Your task to perform on an android device: turn off javascript in the chrome app Image 0: 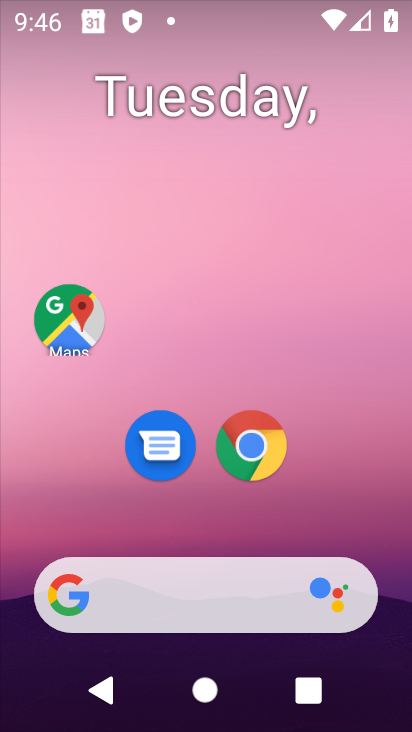
Step 0: press home button
Your task to perform on an android device: turn off javascript in the chrome app Image 1: 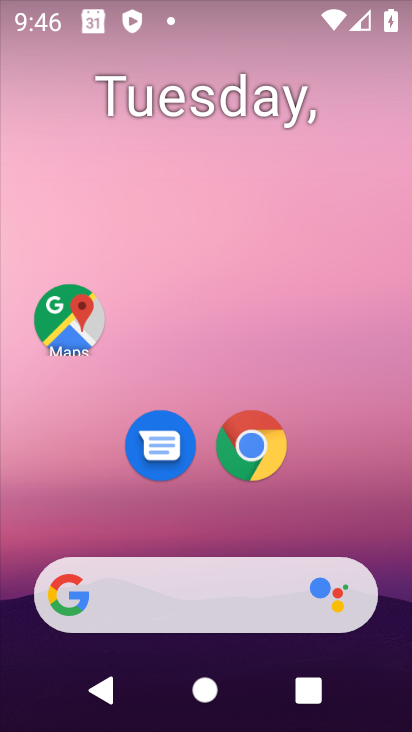
Step 1: click (249, 443)
Your task to perform on an android device: turn off javascript in the chrome app Image 2: 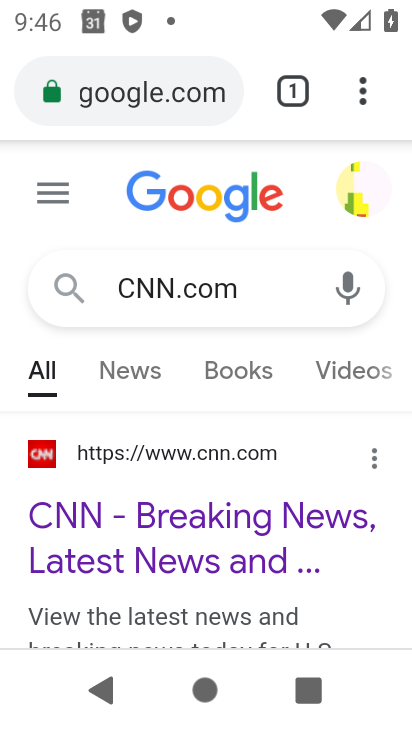
Step 2: click (368, 85)
Your task to perform on an android device: turn off javascript in the chrome app Image 3: 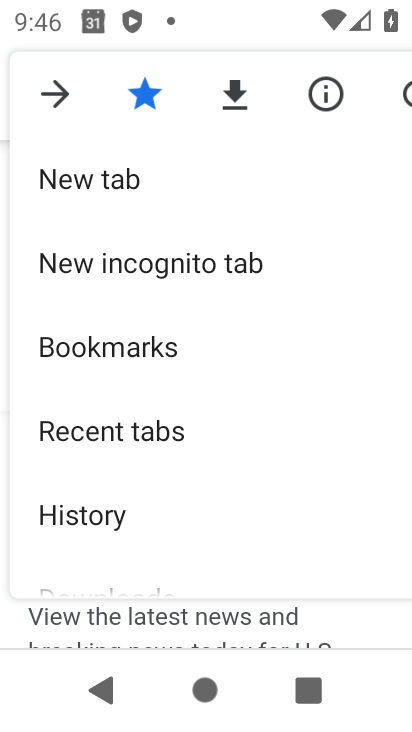
Step 3: drag from (180, 539) to (189, 259)
Your task to perform on an android device: turn off javascript in the chrome app Image 4: 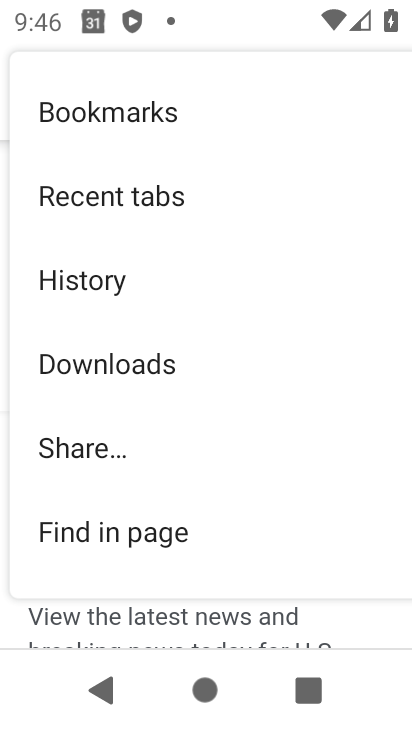
Step 4: drag from (189, 162) to (190, 118)
Your task to perform on an android device: turn off javascript in the chrome app Image 5: 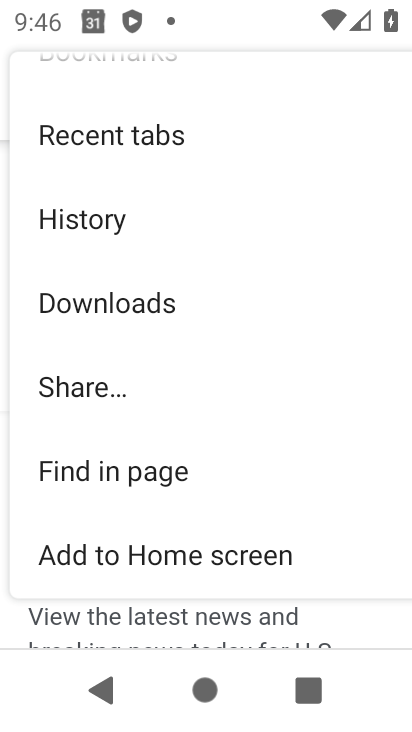
Step 5: drag from (176, 561) to (200, 170)
Your task to perform on an android device: turn off javascript in the chrome app Image 6: 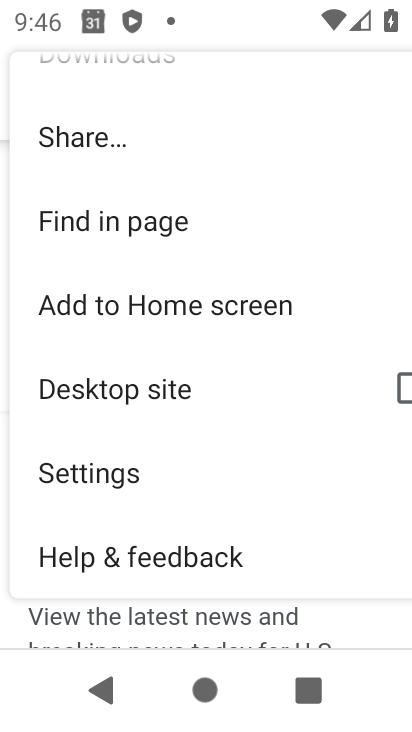
Step 6: click (152, 472)
Your task to perform on an android device: turn off javascript in the chrome app Image 7: 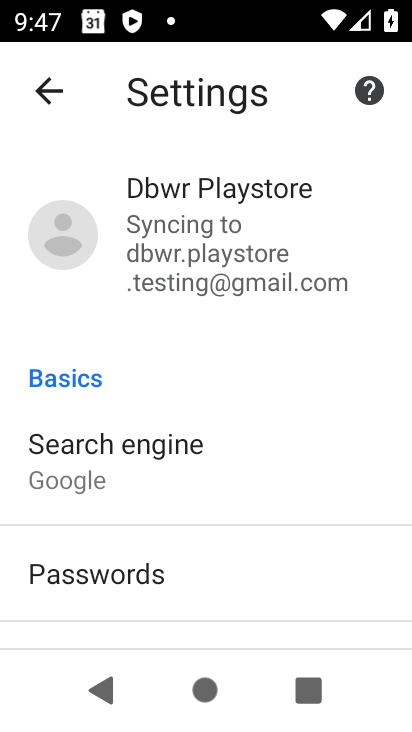
Step 7: drag from (191, 564) to (219, 125)
Your task to perform on an android device: turn off javascript in the chrome app Image 8: 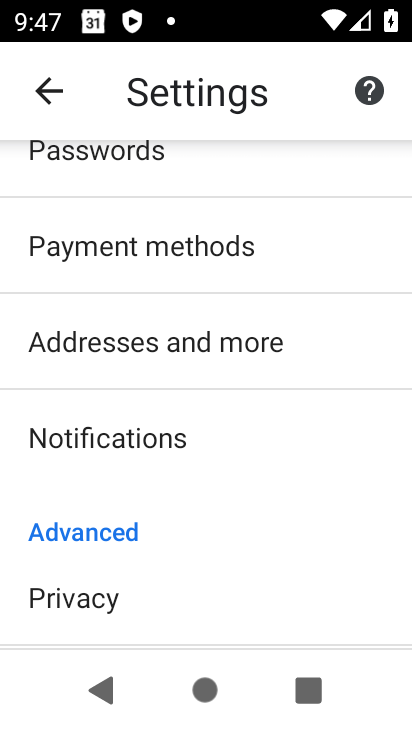
Step 8: drag from (223, 553) to (235, 146)
Your task to perform on an android device: turn off javascript in the chrome app Image 9: 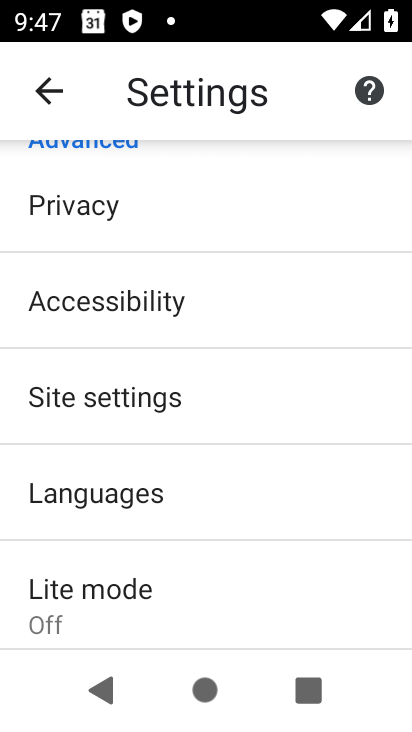
Step 9: click (194, 400)
Your task to perform on an android device: turn off javascript in the chrome app Image 10: 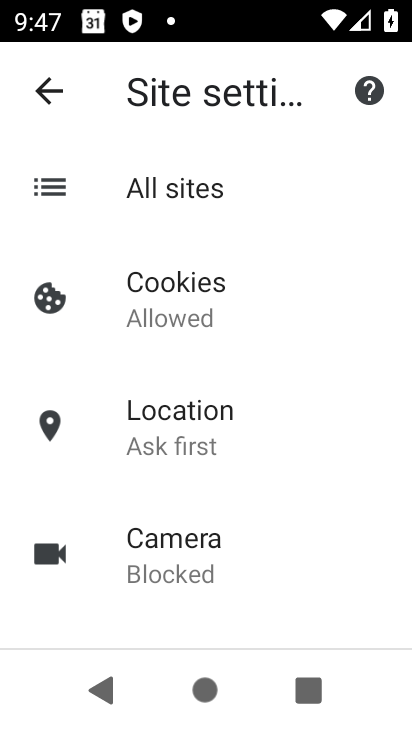
Step 10: drag from (189, 584) to (205, 165)
Your task to perform on an android device: turn off javascript in the chrome app Image 11: 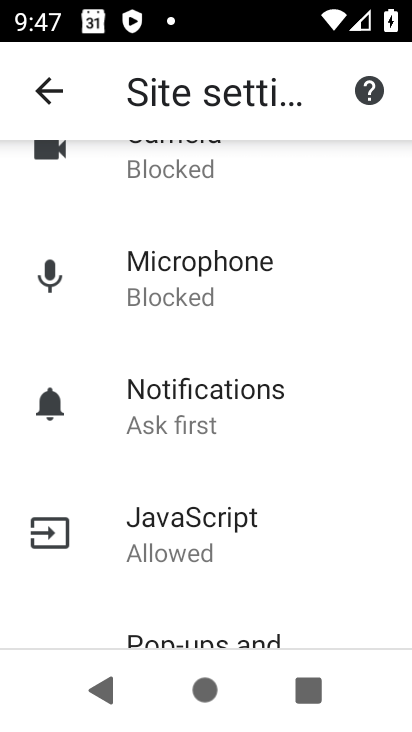
Step 11: click (97, 526)
Your task to perform on an android device: turn off javascript in the chrome app Image 12: 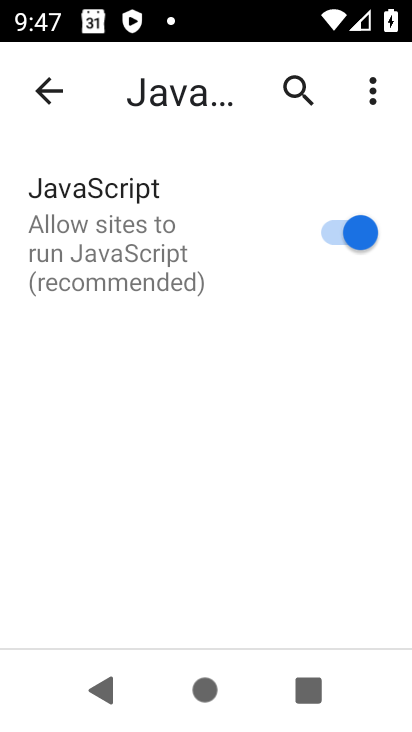
Step 12: click (333, 234)
Your task to perform on an android device: turn off javascript in the chrome app Image 13: 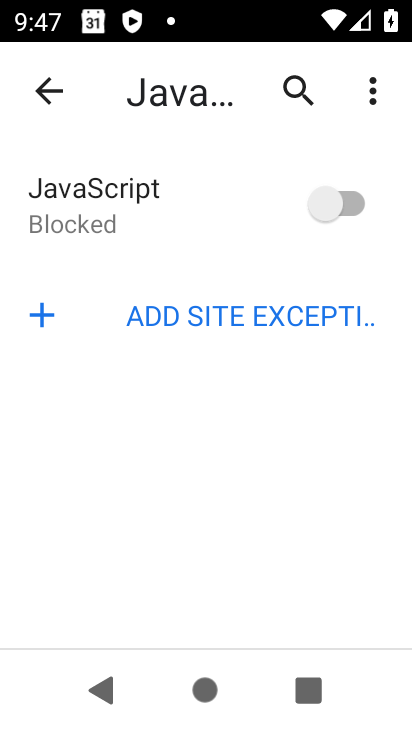
Step 13: task complete